Your task to perform on an android device: turn on improve location accuracy Image 0: 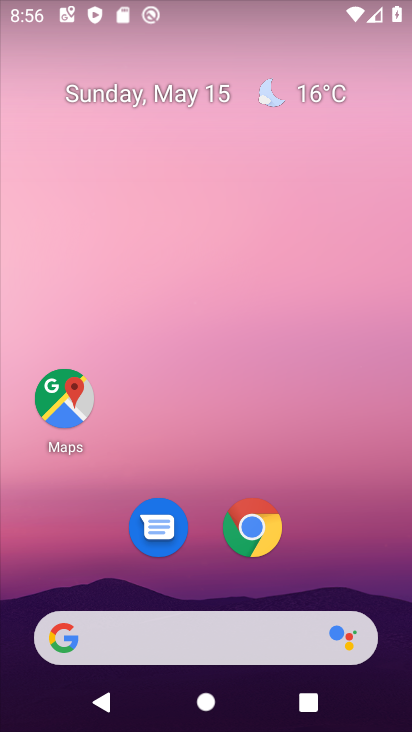
Step 0: drag from (356, 588) to (373, 12)
Your task to perform on an android device: turn on improve location accuracy Image 1: 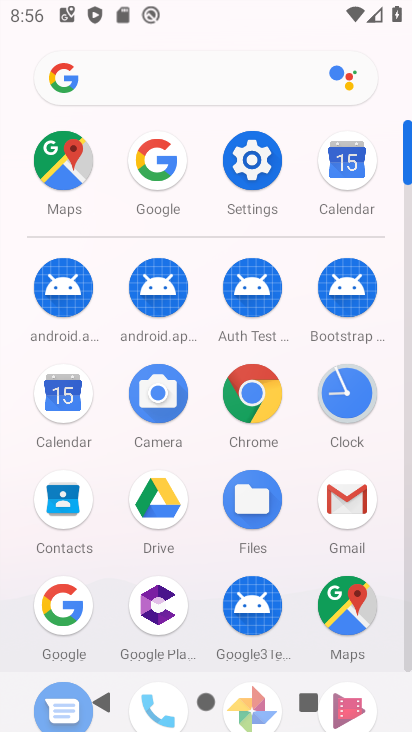
Step 1: click (260, 162)
Your task to perform on an android device: turn on improve location accuracy Image 2: 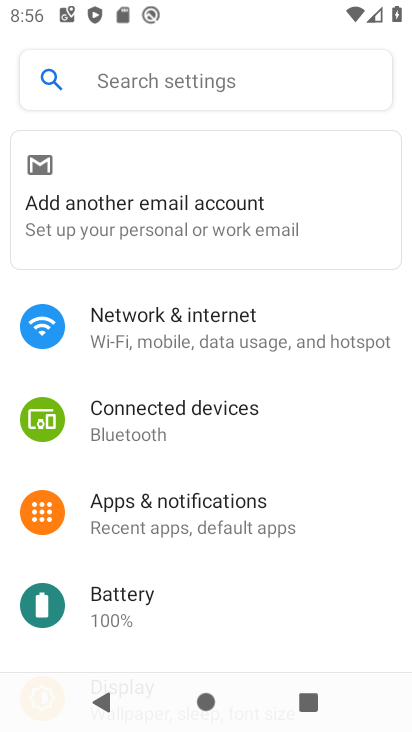
Step 2: drag from (235, 498) to (219, 64)
Your task to perform on an android device: turn on improve location accuracy Image 3: 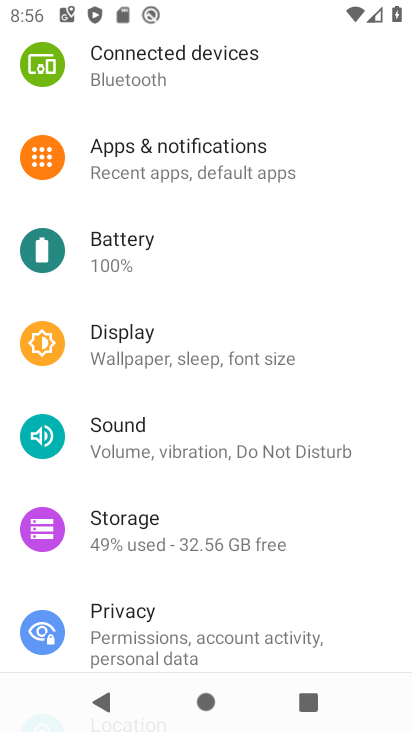
Step 3: drag from (302, 570) to (328, 173)
Your task to perform on an android device: turn on improve location accuracy Image 4: 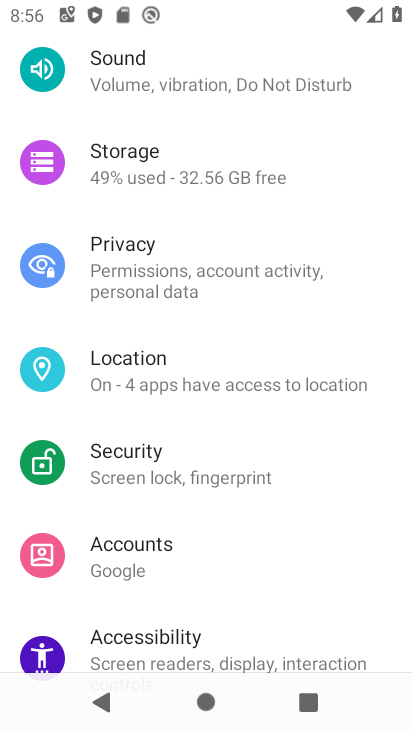
Step 4: click (120, 380)
Your task to perform on an android device: turn on improve location accuracy Image 5: 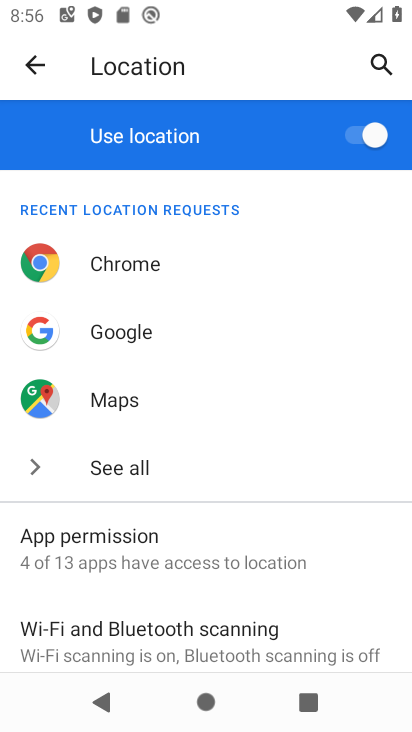
Step 5: drag from (196, 556) to (197, 267)
Your task to perform on an android device: turn on improve location accuracy Image 6: 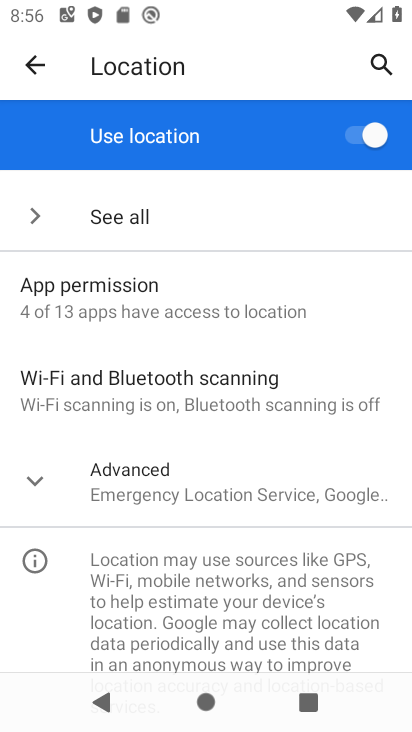
Step 6: click (37, 483)
Your task to perform on an android device: turn on improve location accuracy Image 7: 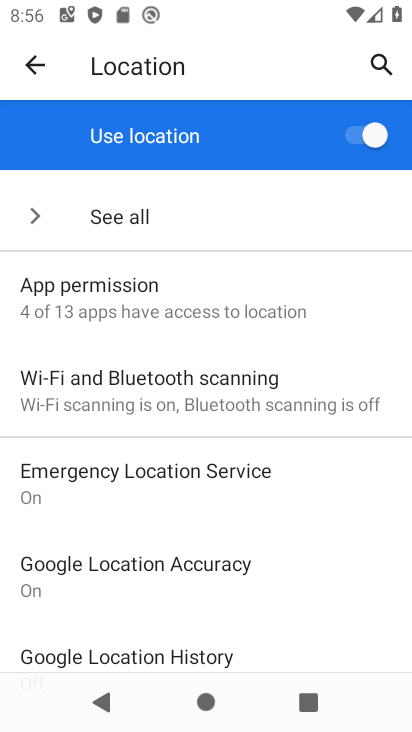
Step 7: click (58, 575)
Your task to perform on an android device: turn on improve location accuracy Image 8: 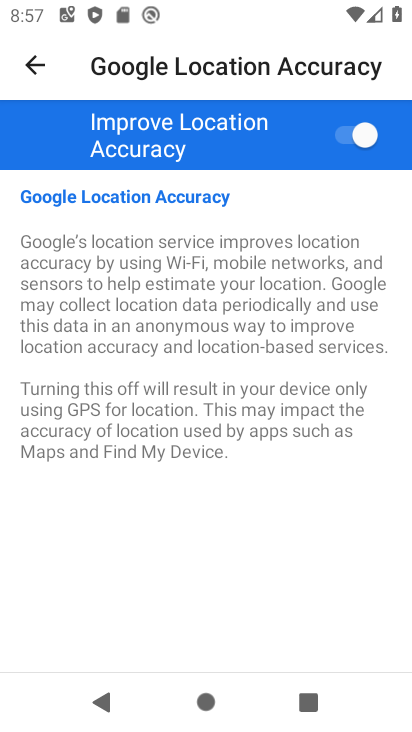
Step 8: task complete